Your task to perform on an android device: Go to battery settings Image 0: 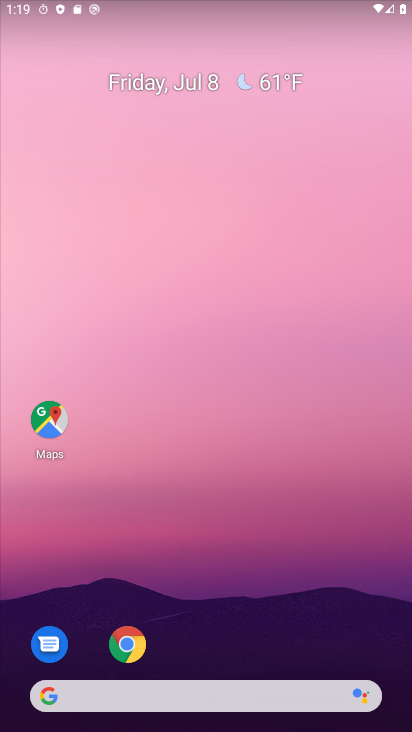
Step 0: click (176, 622)
Your task to perform on an android device: Go to battery settings Image 1: 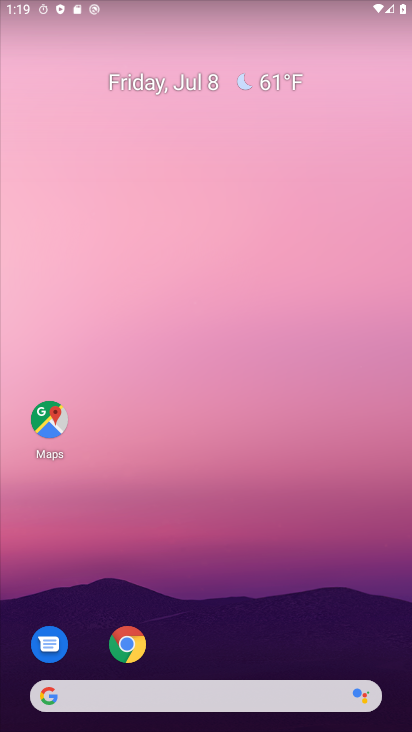
Step 1: drag from (176, 245) to (176, 1)
Your task to perform on an android device: Go to battery settings Image 2: 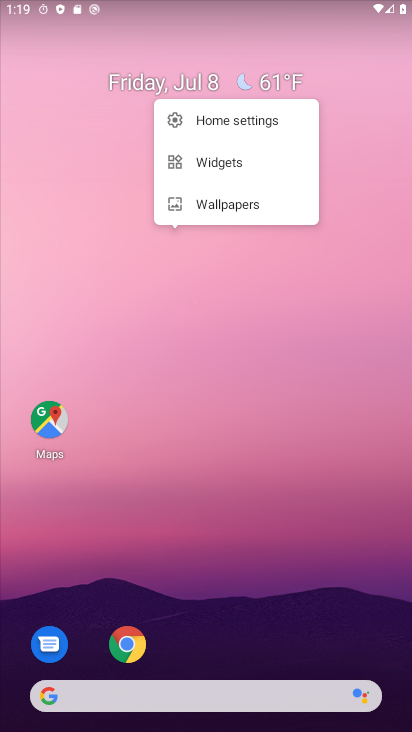
Step 2: click (245, 637)
Your task to perform on an android device: Go to battery settings Image 3: 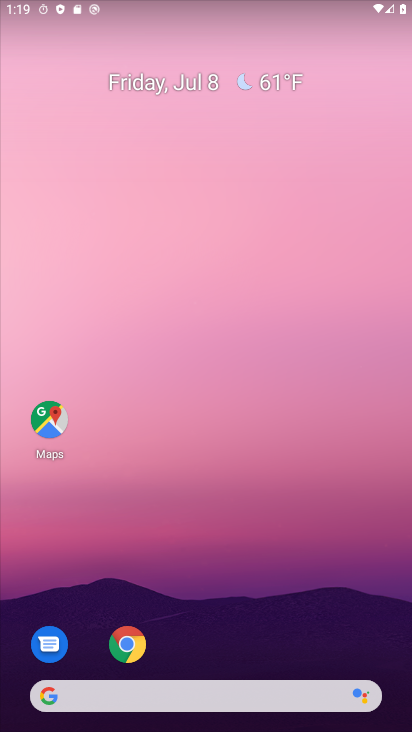
Step 3: drag from (245, 637) to (194, 0)
Your task to perform on an android device: Go to battery settings Image 4: 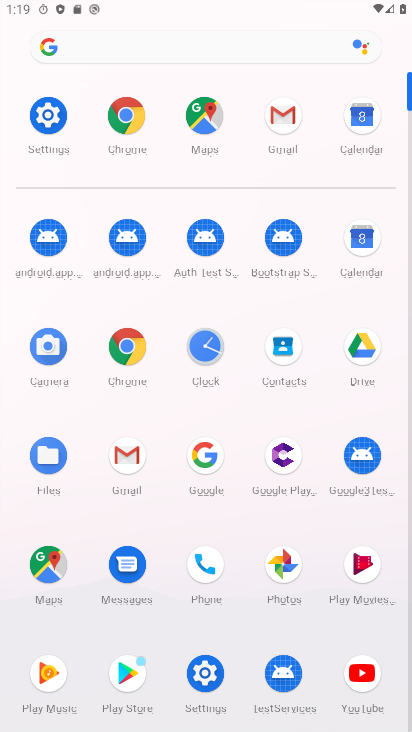
Step 4: click (41, 121)
Your task to perform on an android device: Go to battery settings Image 5: 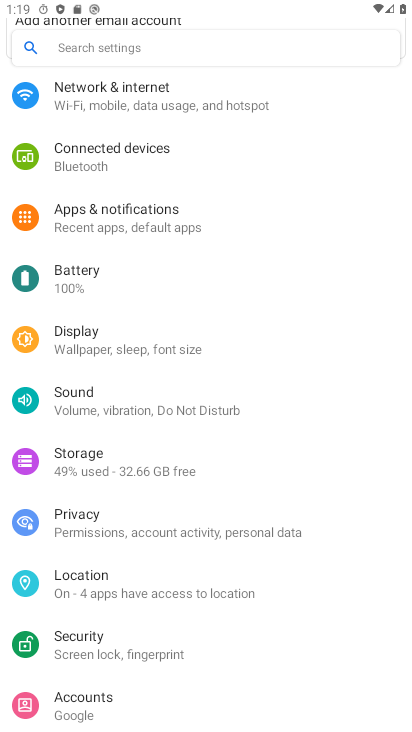
Step 5: drag from (139, 288) to (144, 584)
Your task to perform on an android device: Go to battery settings Image 6: 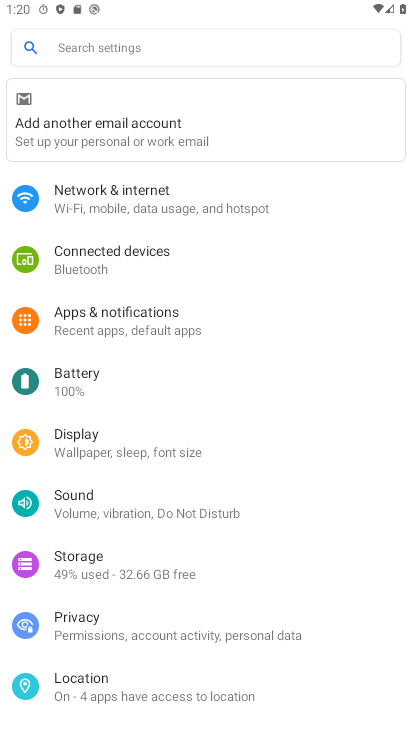
Step 6: click (51, 381)
Your task to perform on an android device: Go to battery settings Image 7: 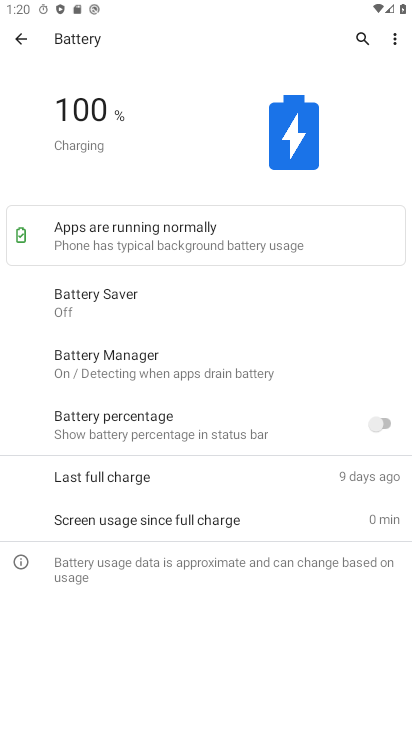
Step 7: task complete